Your task to perform on an android device: move a message to another label in the gmail app Image 0: 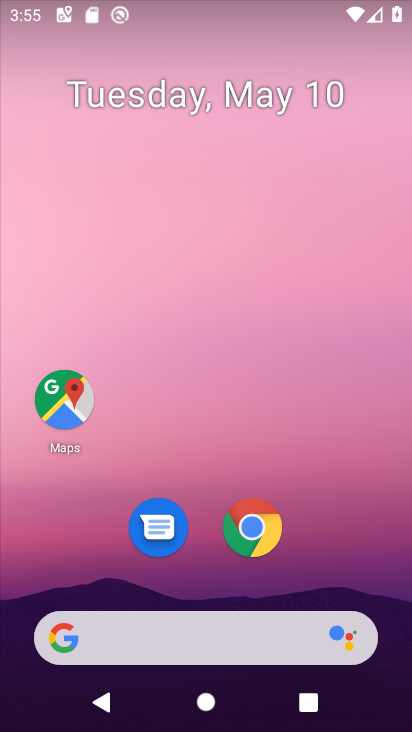
Step 0: drag from (398, 621) to (392, 274)
Your task to perform on an android device: move a message to another label in the gmail app Image 1: 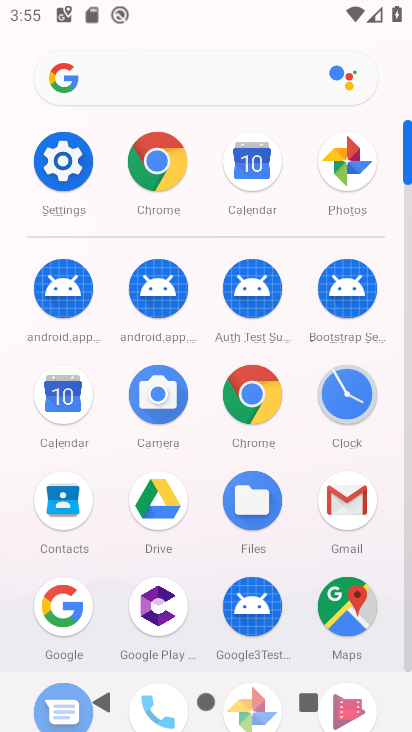
Step 1: click (352, 502)
Your task to perform on an android device: move a message to another label in the gmail app Image 2: 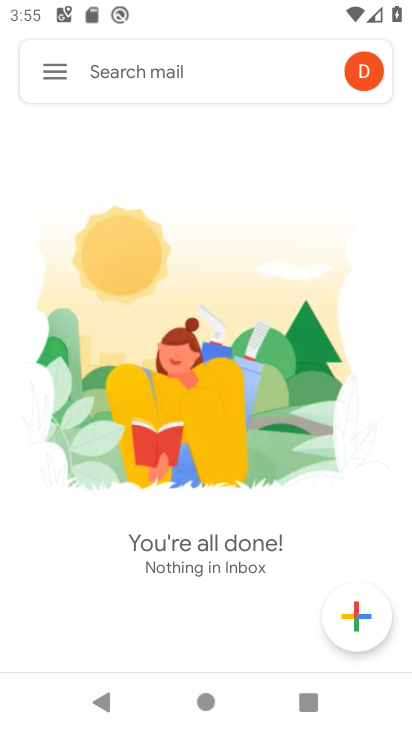
Step 2: click (53, 70)
Your task to perform on an android device: move a message to another label in the gmail app Image 3: 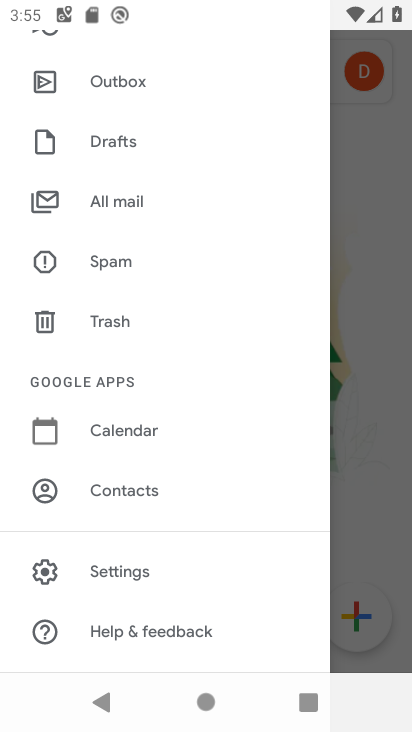
Step 3: drag from (222, 123) to (268, 451)
Your task to perform on an android device: move a message to another label in the gmail app Image 4: 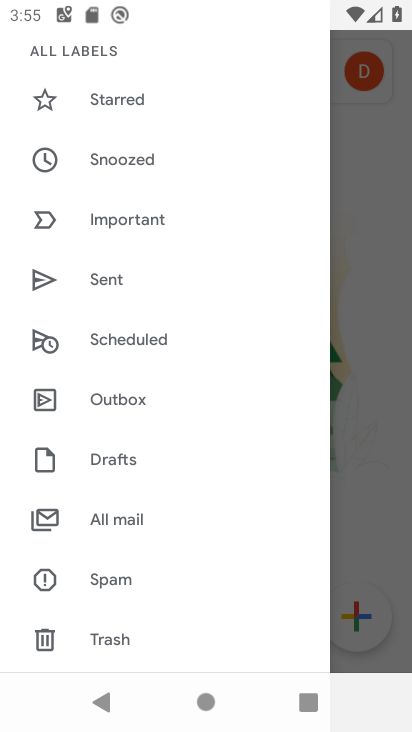
Step 4: drag from (237, 148) to (274, 476)
Your task to perform on an android device: move a message to another label in the gmail app Image 5: 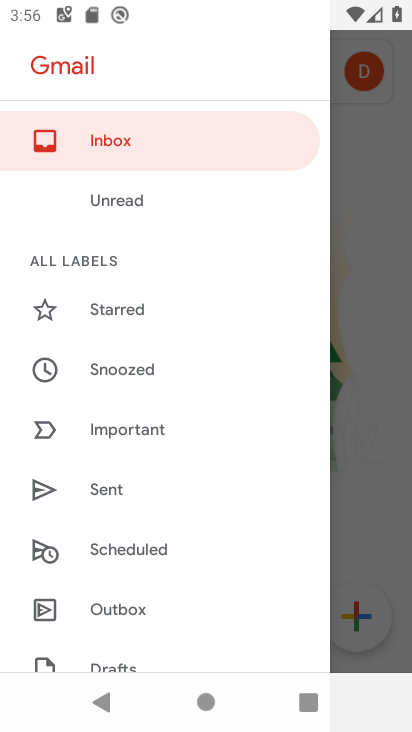
Step 5: click (127, 141)
Your task to perform on an android device: move a message to another label in the gmail app Image 6: 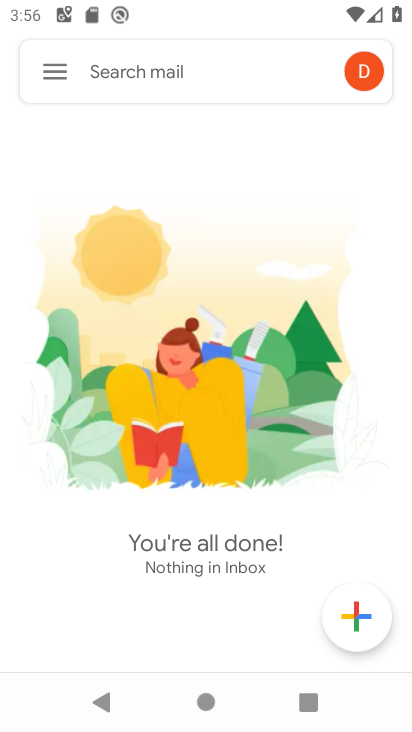
Step 6: task complete